Your task to perform on an android device: Go to Google maps Image 0: 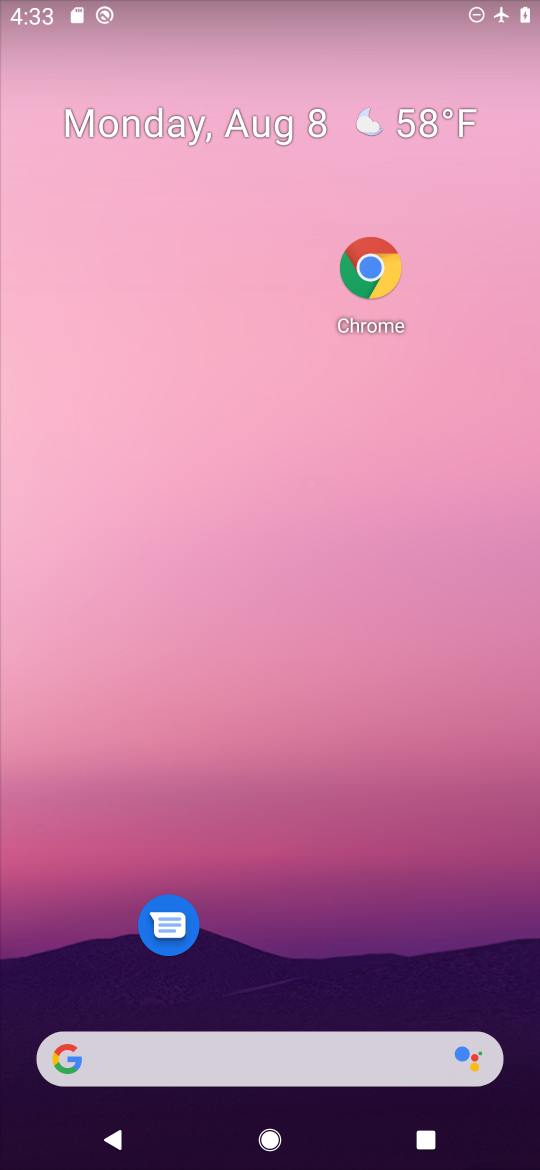
Step 0: drag from (321, 848) to (333, 188)
Your task to perform on an android device: Go to Google maps Image 1: 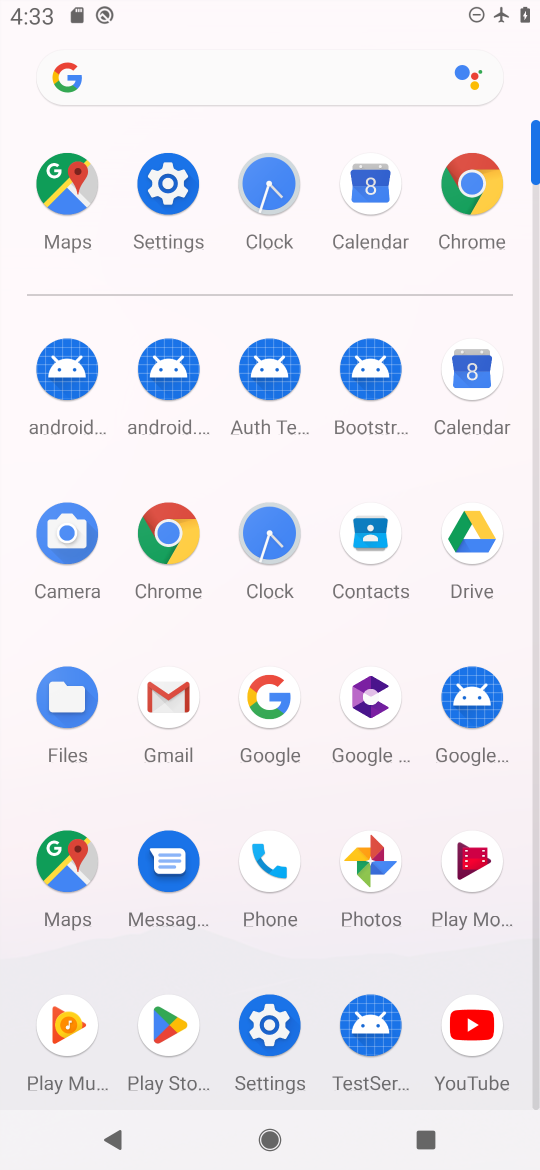
Step 1: click (72, 877)
Your task to perform on an android device: Go to Google maps Image 2: 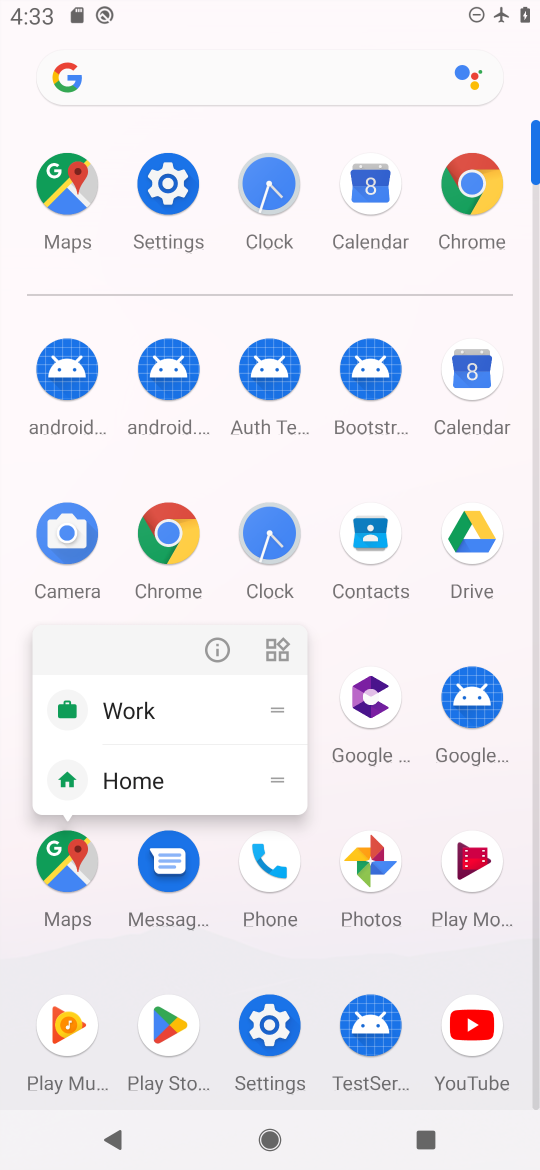
Step 2: click (66, 854)
Your task to perform on an android device: Go to Google maps Image 3: 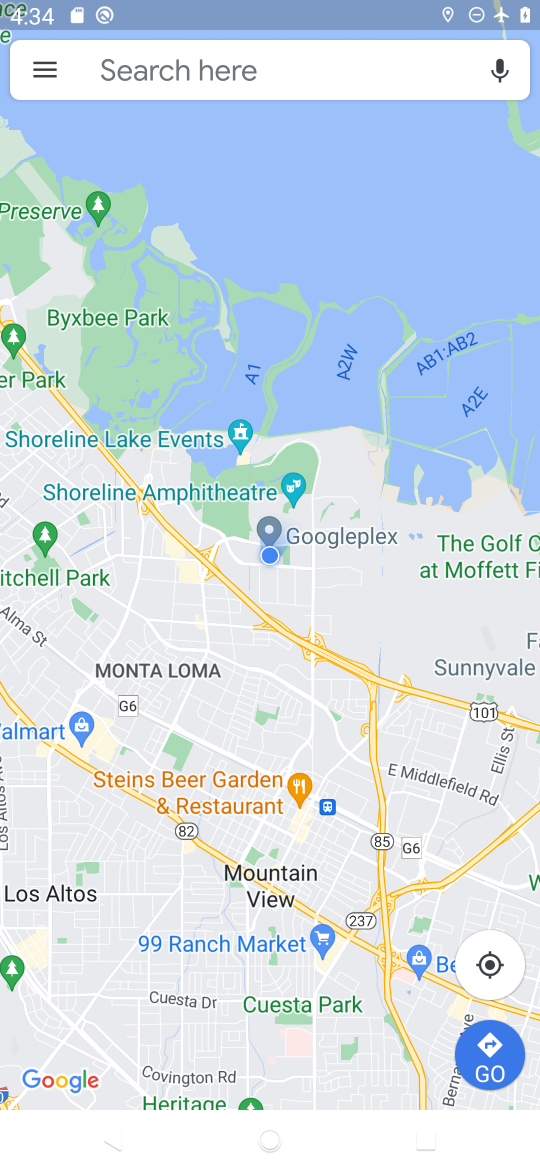
Step 3: task complete